Your task to perform on an android device: Go to sound settings Image 0: 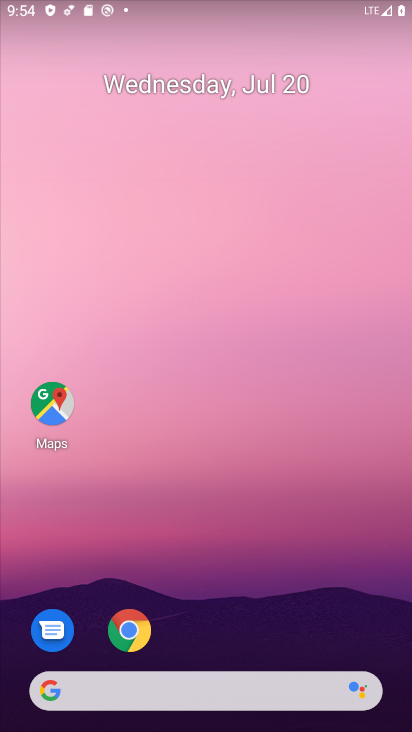
Step 0: drag from (257, 554) to (173, 31)
Your task to perform on an android device: Go to sound settings Image 1: 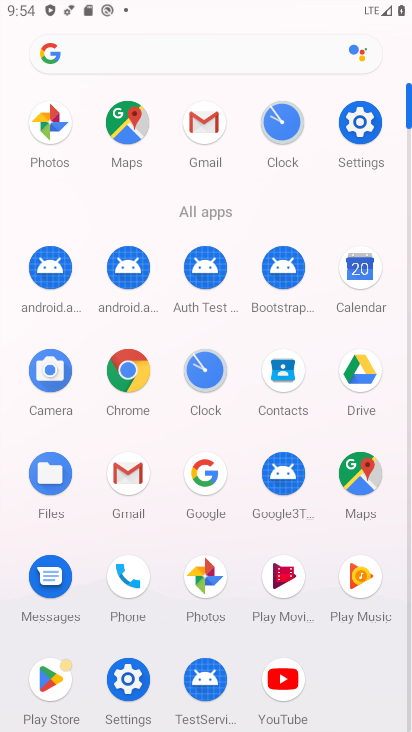
Step 1: click (361, 121)
Your task to perform on an android device: Go to sound settings Image 2: 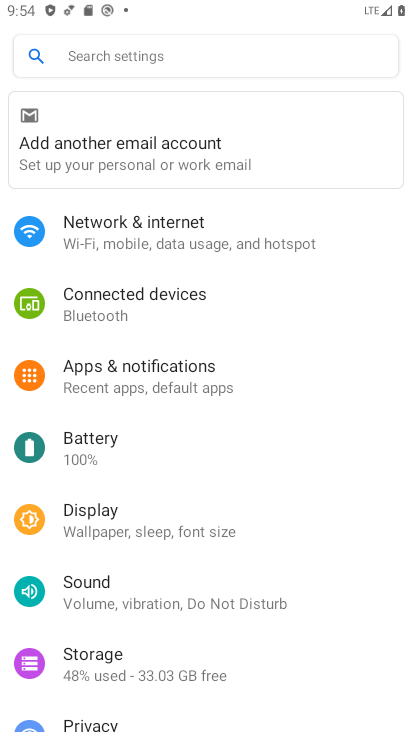
Step 2: click (118, 584)
Your task to perform on an android device: Go to sound settings Image 3: 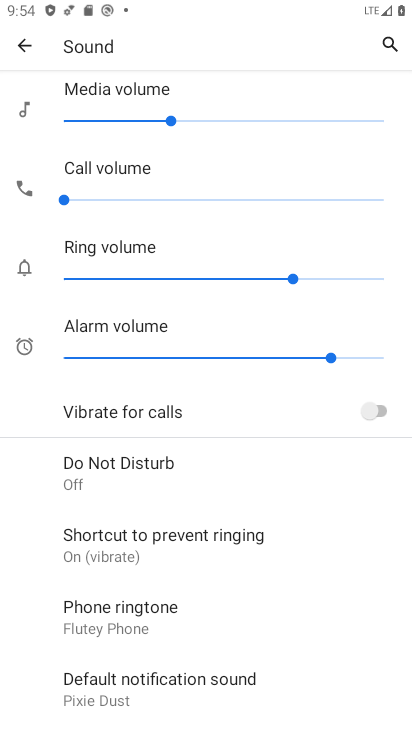
Step 3: task complete